Your task to perform on an android device: What's the latest video from GameSpot News? Image 0: 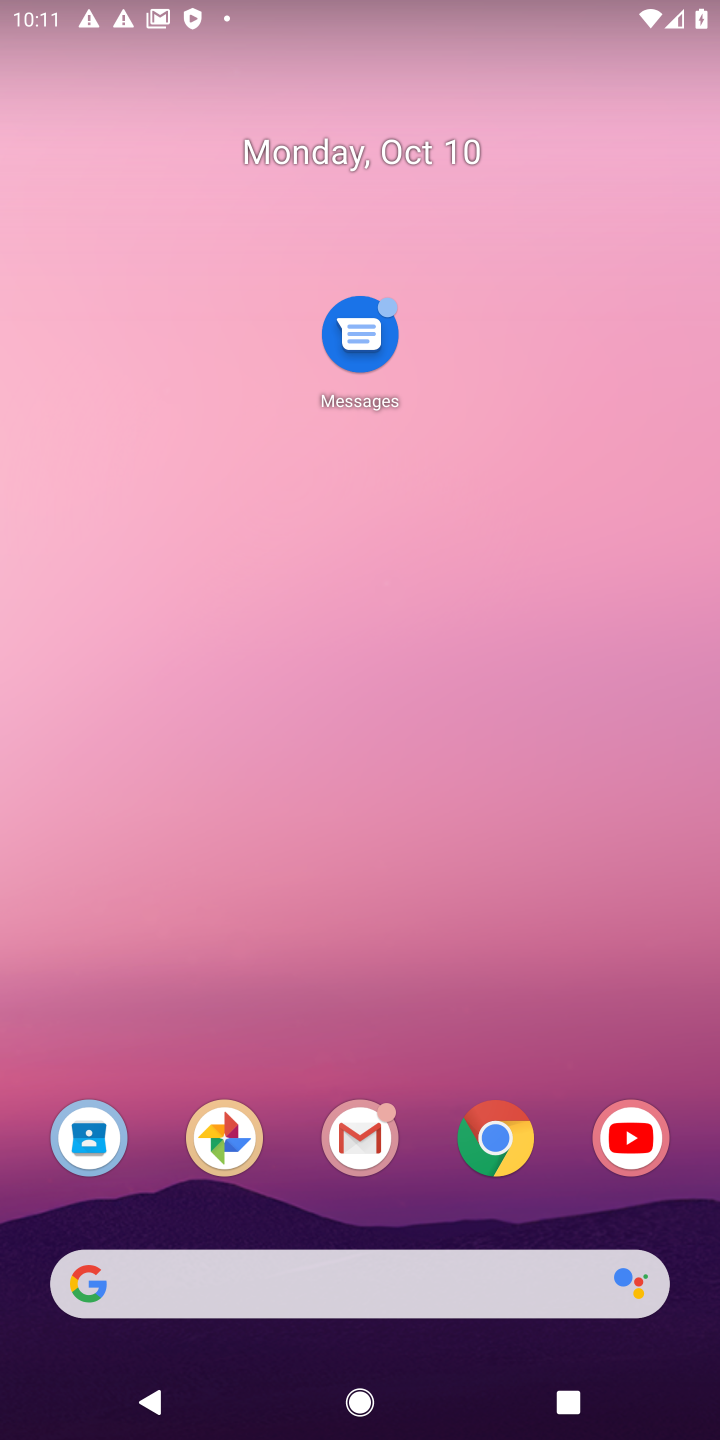
Step 0: click (504, 1120)
Your task to perform on an android device: What's the latest video from GameSpot News? Image 1: 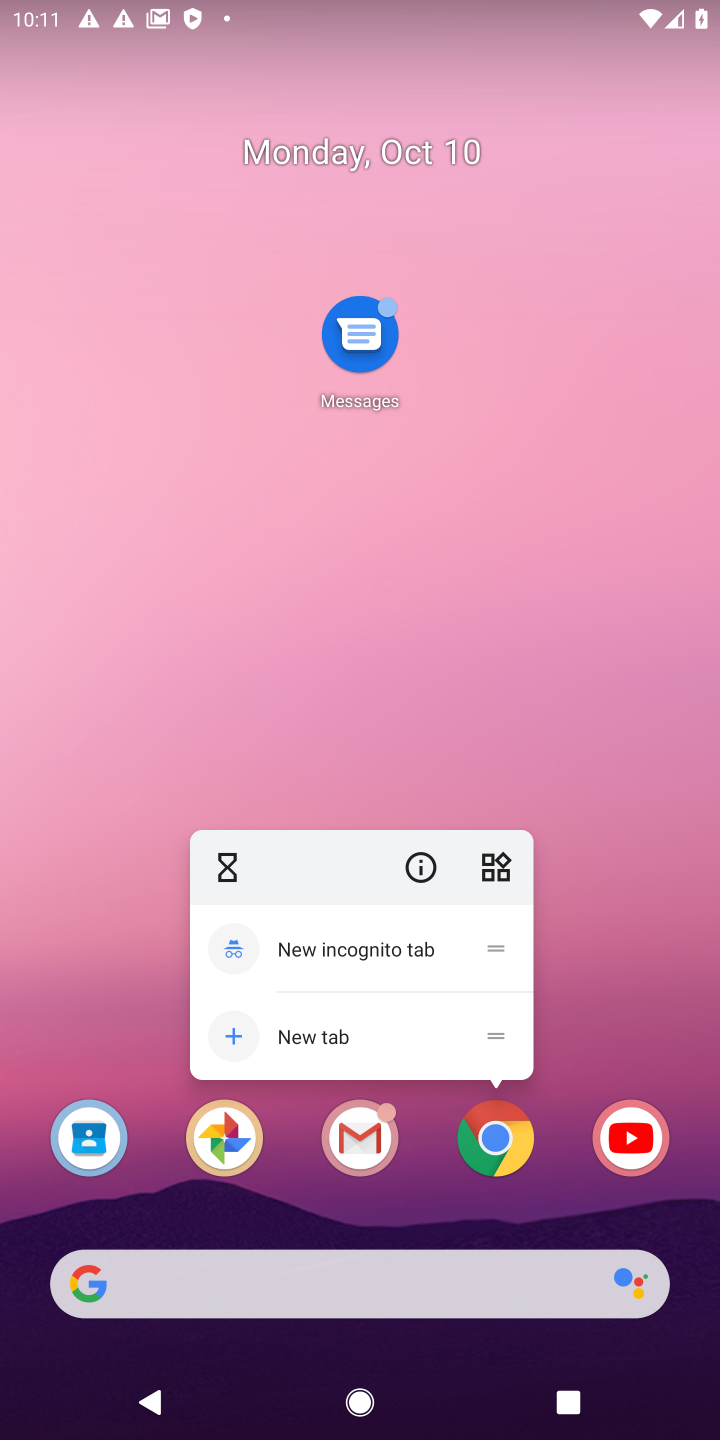
Step 1: click (504, 1151)
Your task to perform on an android device: What's the latest video from GameSpot News? Image 2: 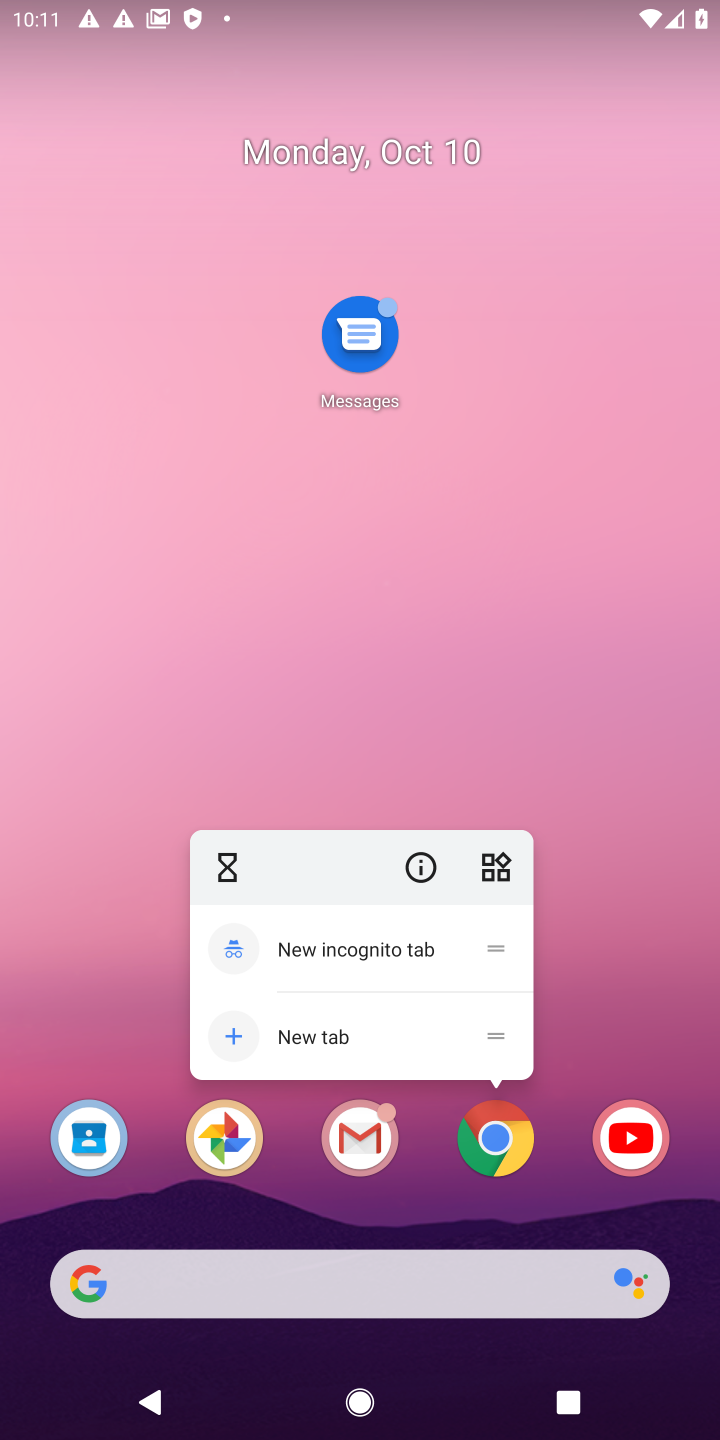
Step 2: click (640, 1152)
Your task to perform on an android device: What's the latest video from GameSpot News? Image 3: 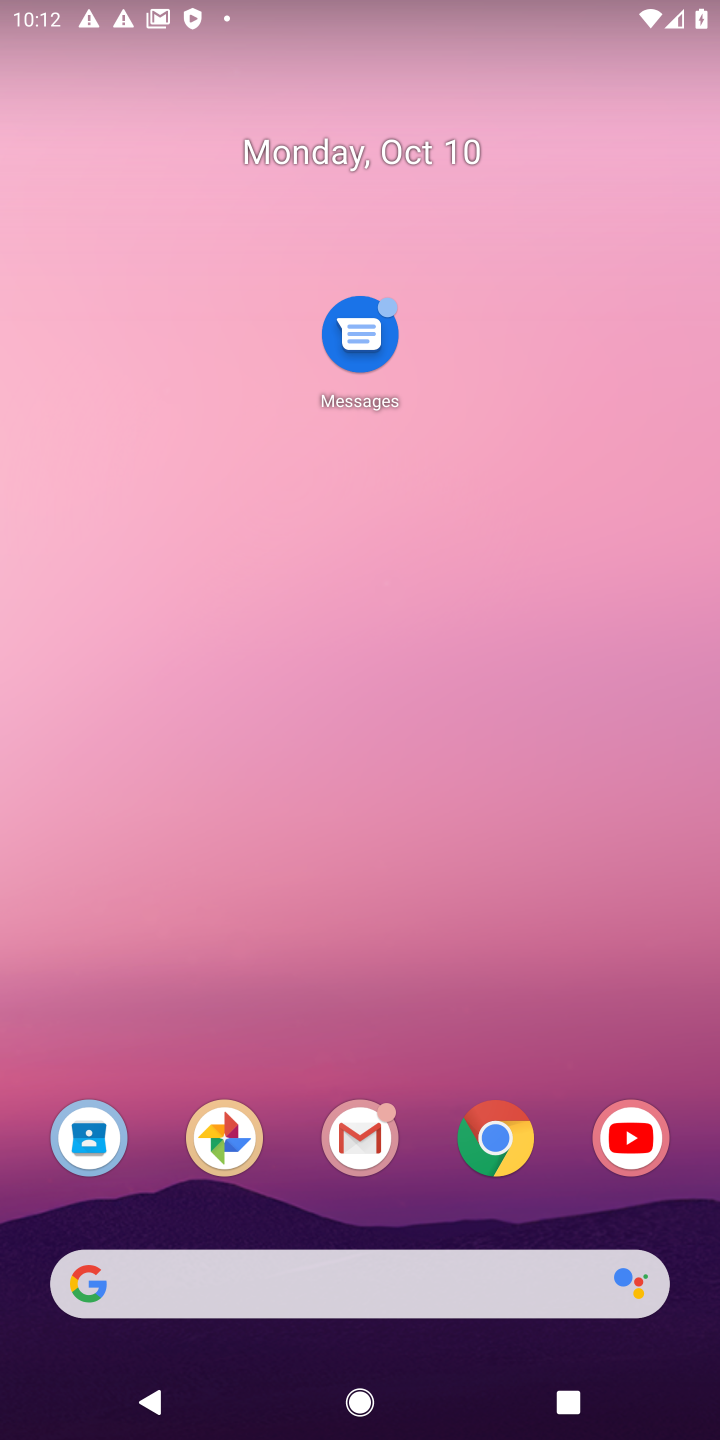
Step 3: click (648, 1146)
Your task to perform on an android device: What's the latest video from GameSpot News? Image 4: 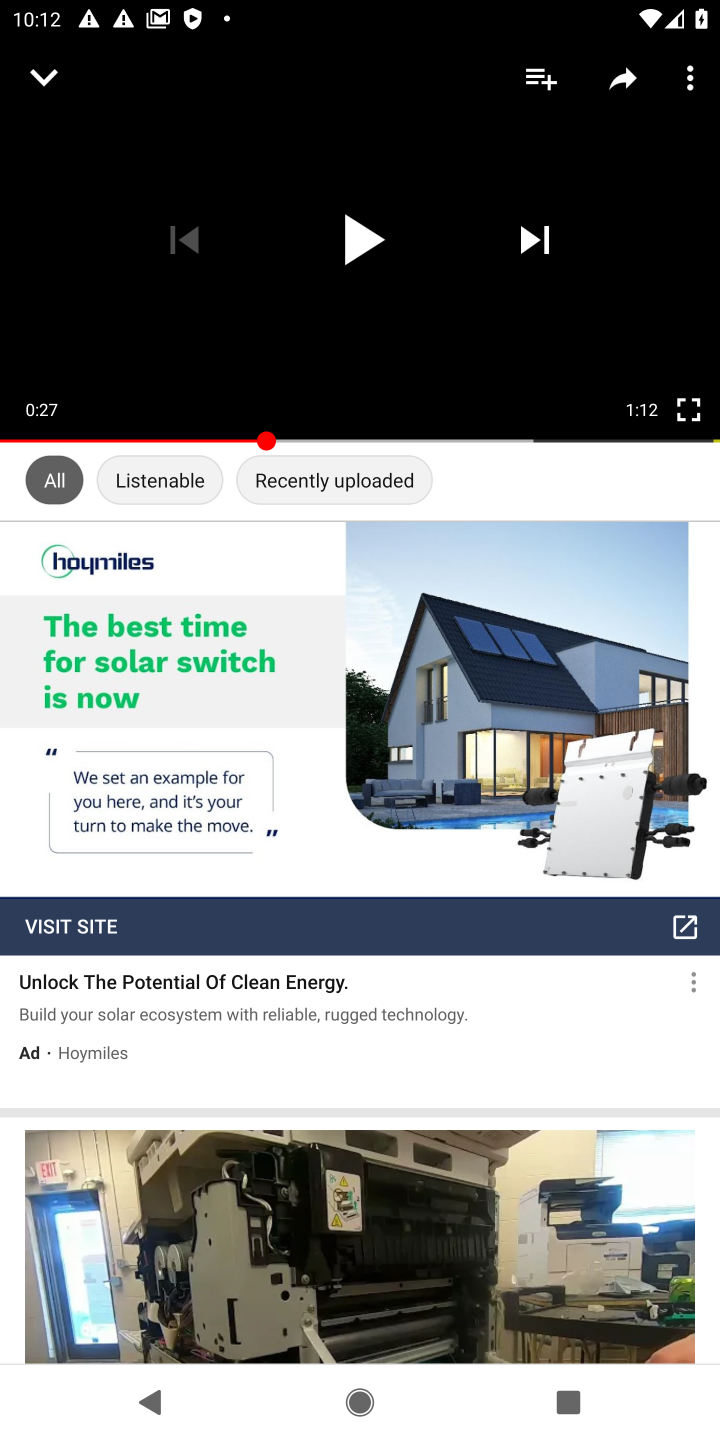
Step 4: click (50, 71)
Your task to perform on an android device: What's the latest video from GameSpot News? Image 5: 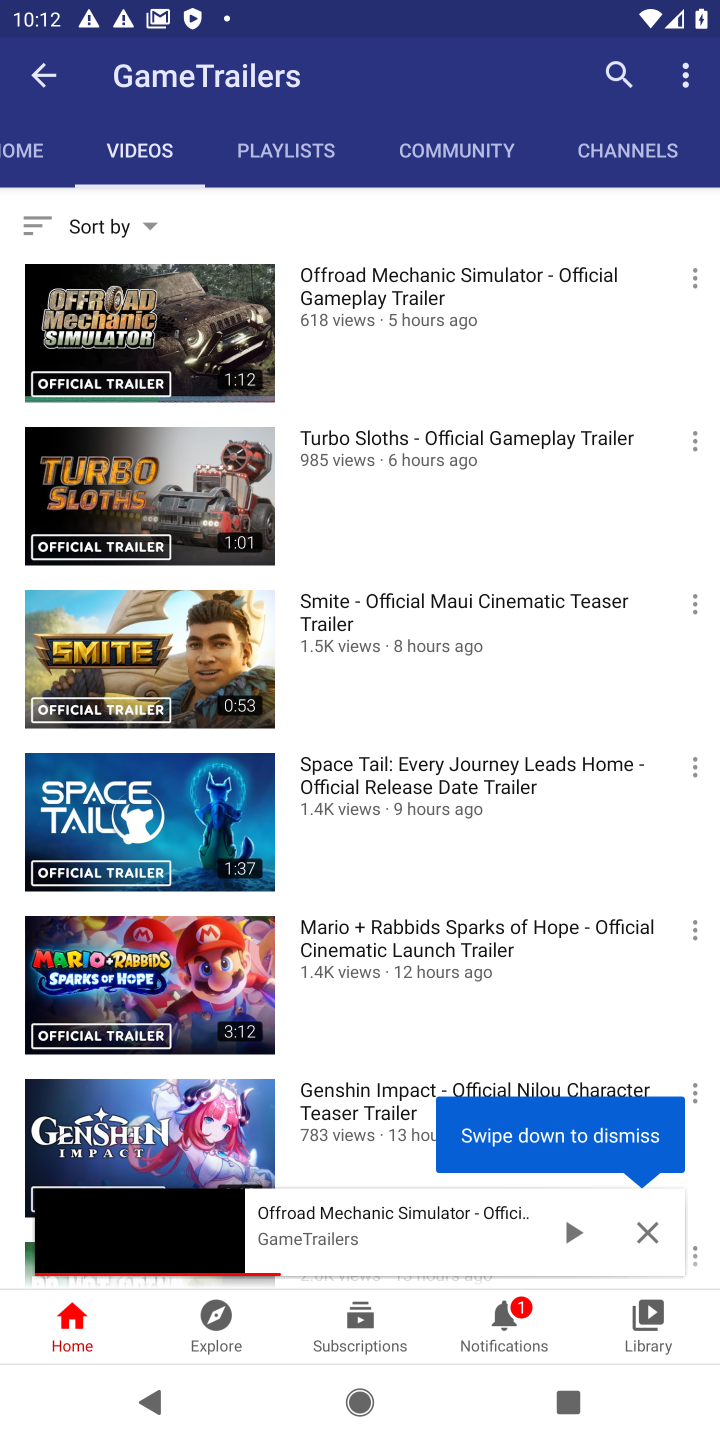
Step 5: click (610, 70)
Your task to perform on an android device: What's the latest video from GameSpot News? Image 6: 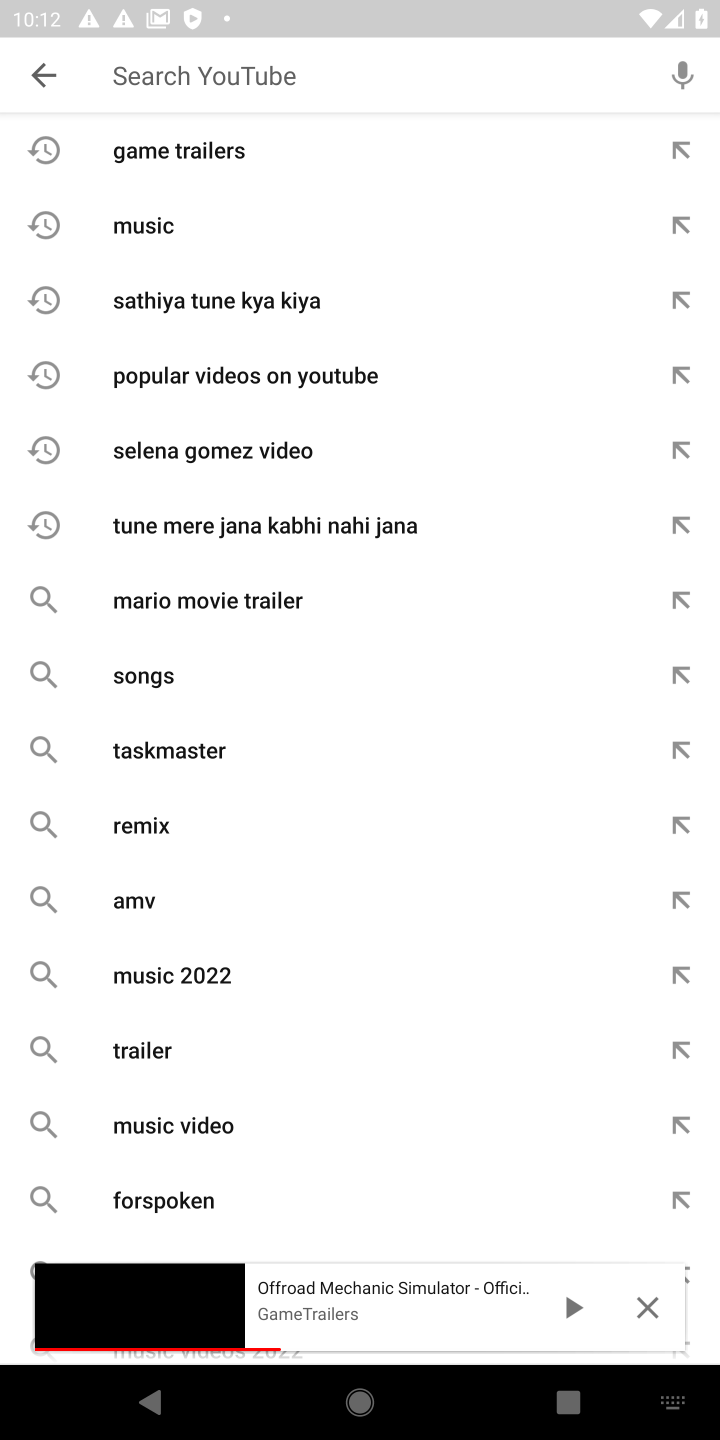
Step 6: type "gamespot news"
Your task to perform on an android device: What's the latest video from GameSpot News? Image 7: 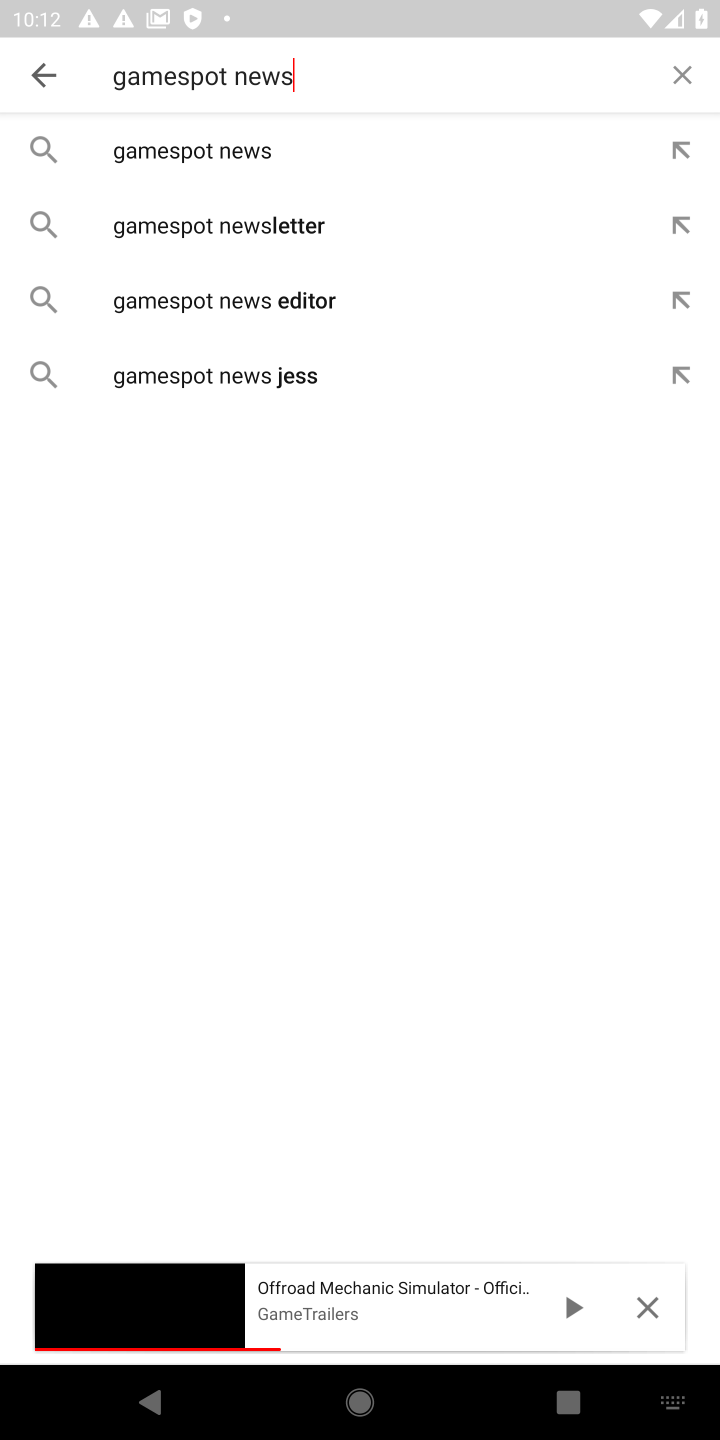
Step 7: press enter
Your task to perform on an android device: What's the latest video from GameSpot News? Image 8: 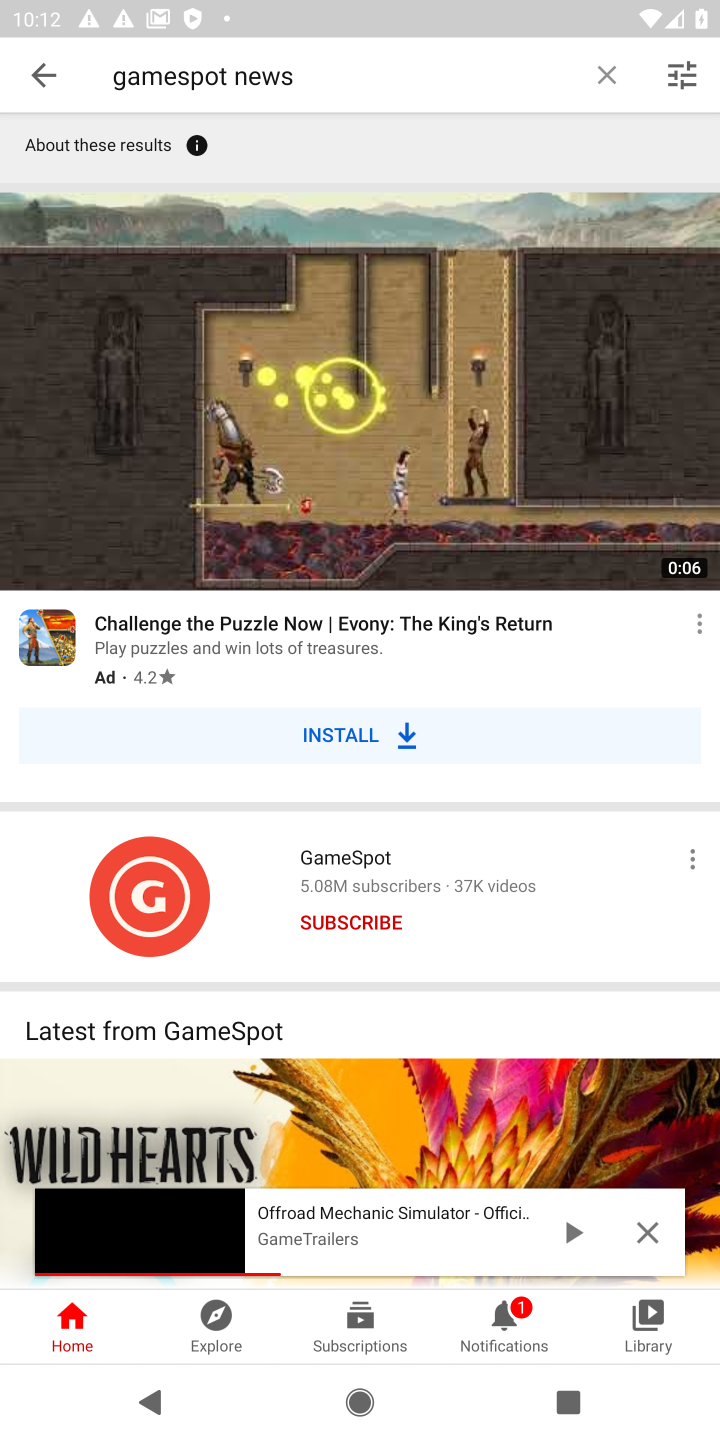
Step 8: click (653, 1239)
Your task to perform on an android device: What's the latest video from GameSpot News? Image 9: 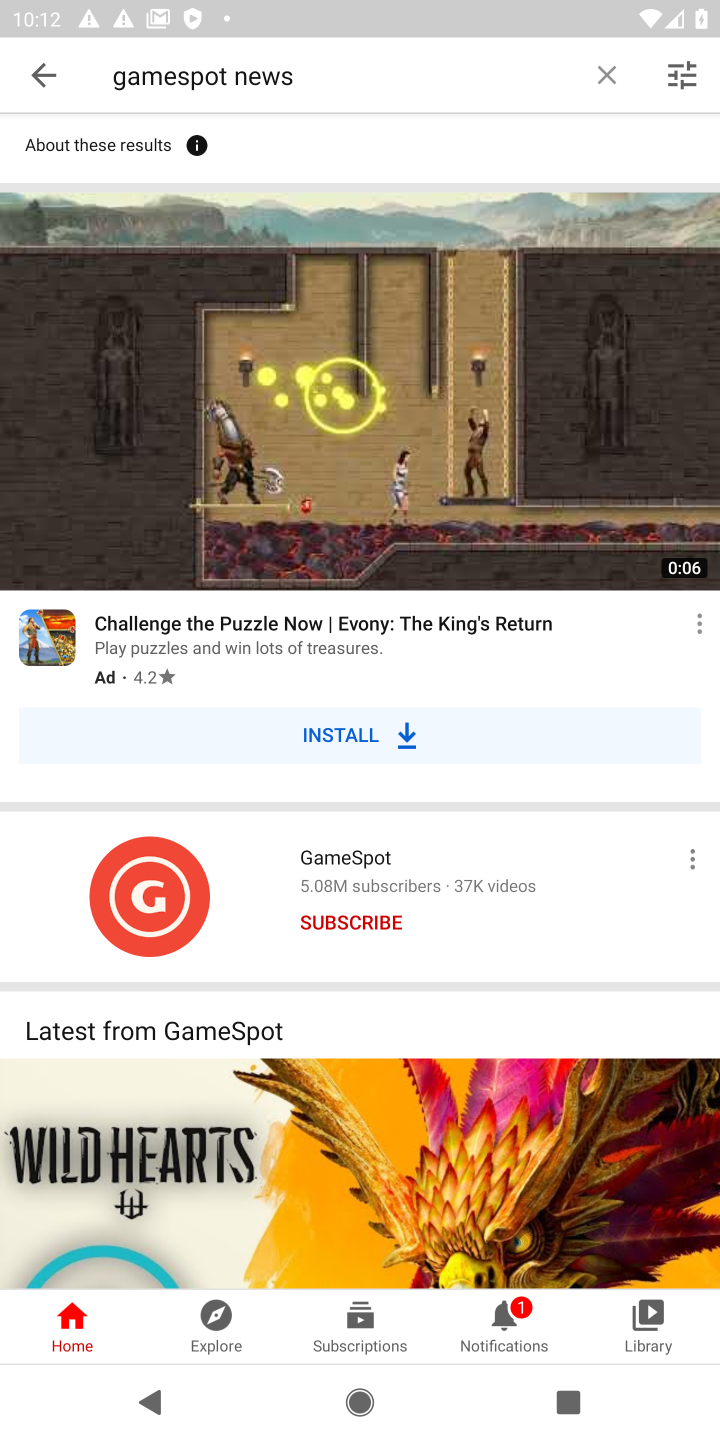
Step 9: click (339, 861)
Your task to perform on an android device: What's the latest video from GameSpot News? Image 10: 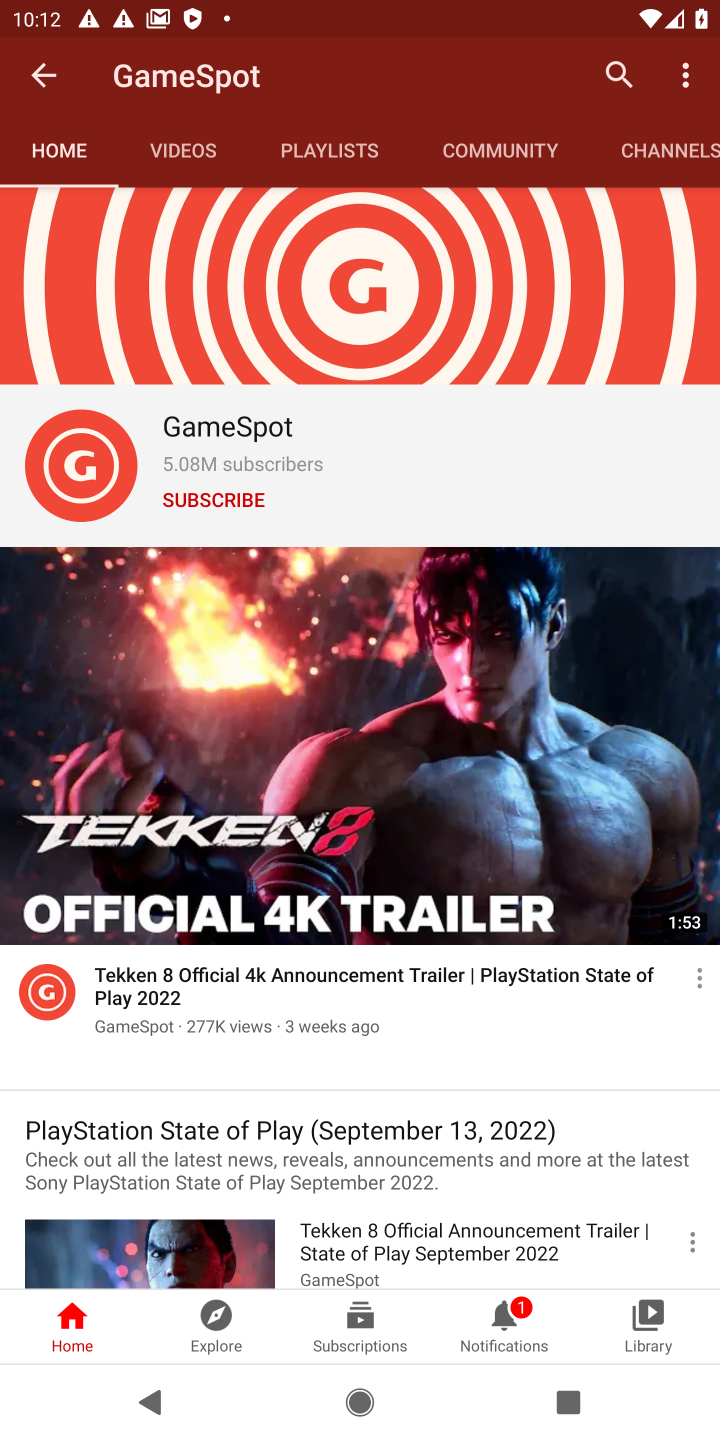
Step 10: click (190, 164)
Your task to perform on an android device: What's the latest video from GameSpot News? Image 11: 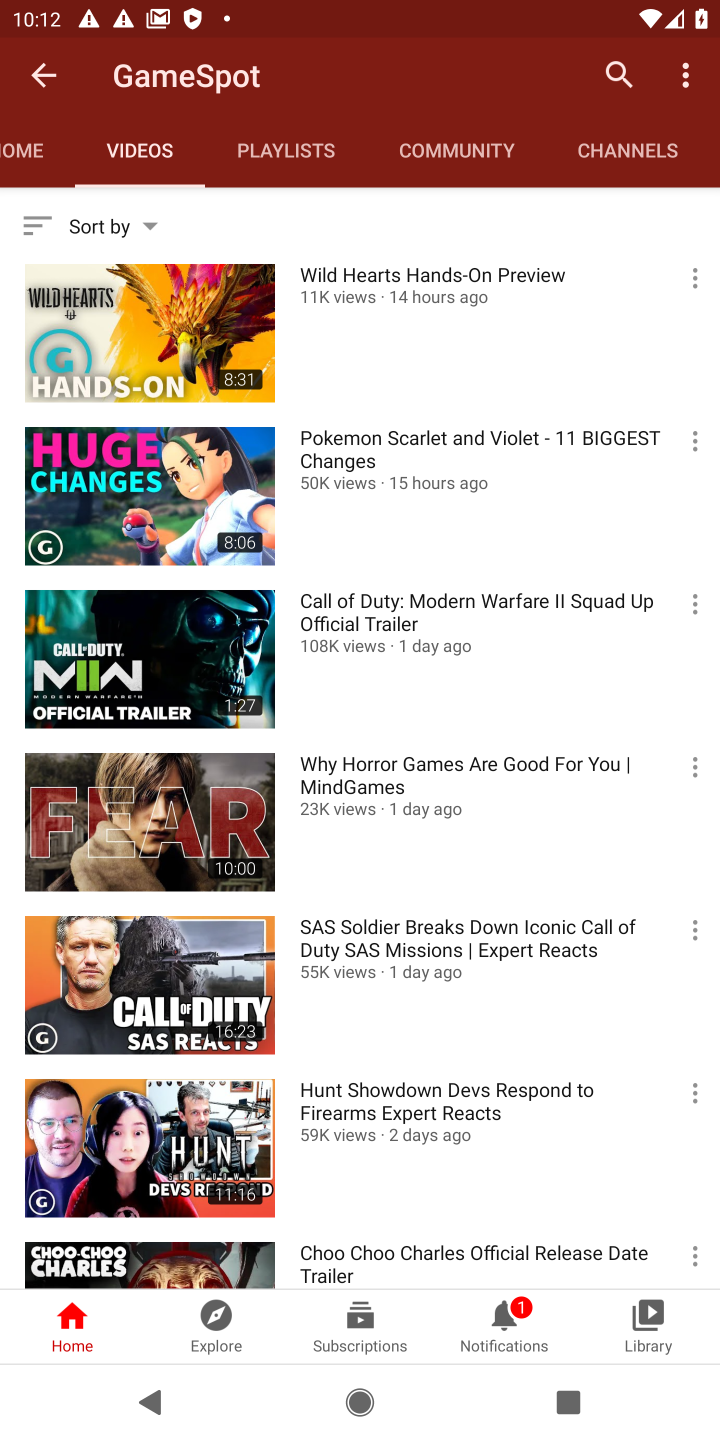
Step 11: click (125, 342)
Your task to perform on an android device: What's the latest video from GameSpot News? Image 12: 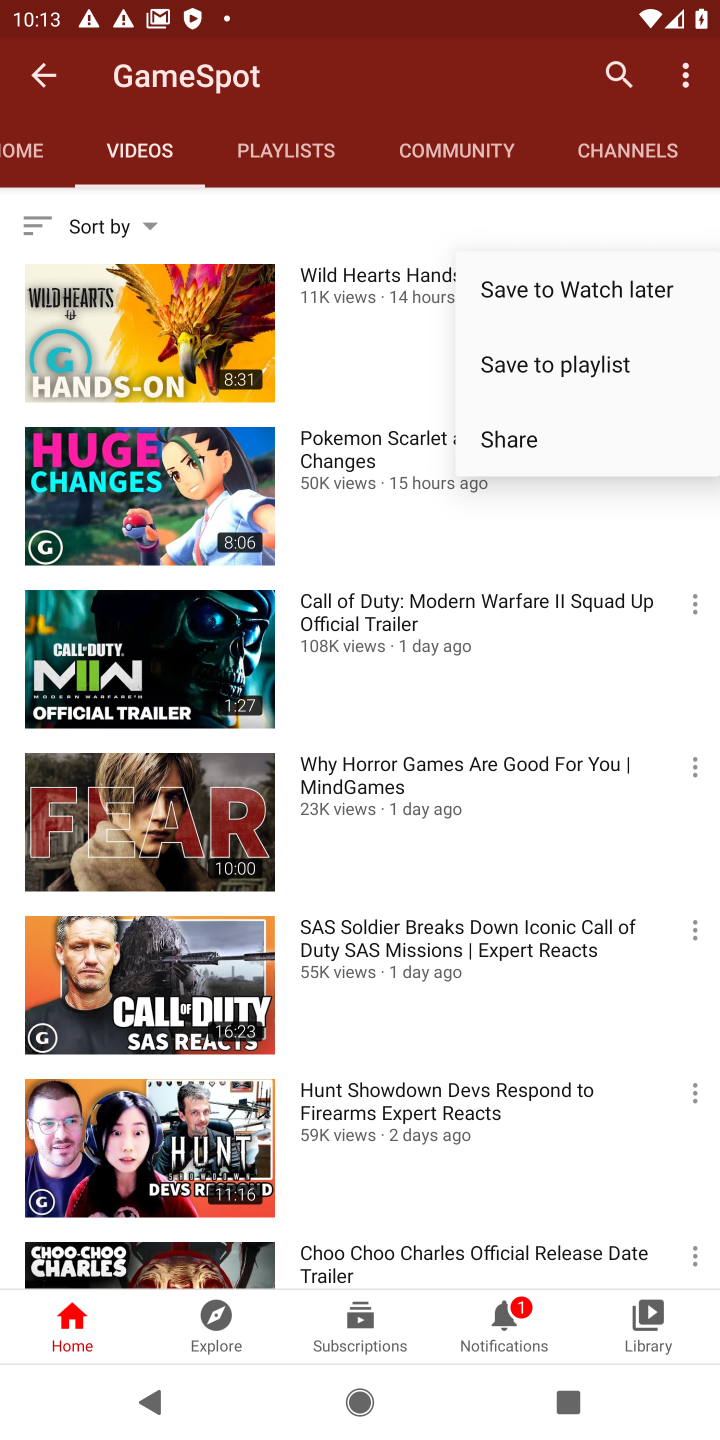
Step 12: click (119, 291)
Your task to perform on an android device: What's the latest video from GameSpot News? Image 13: 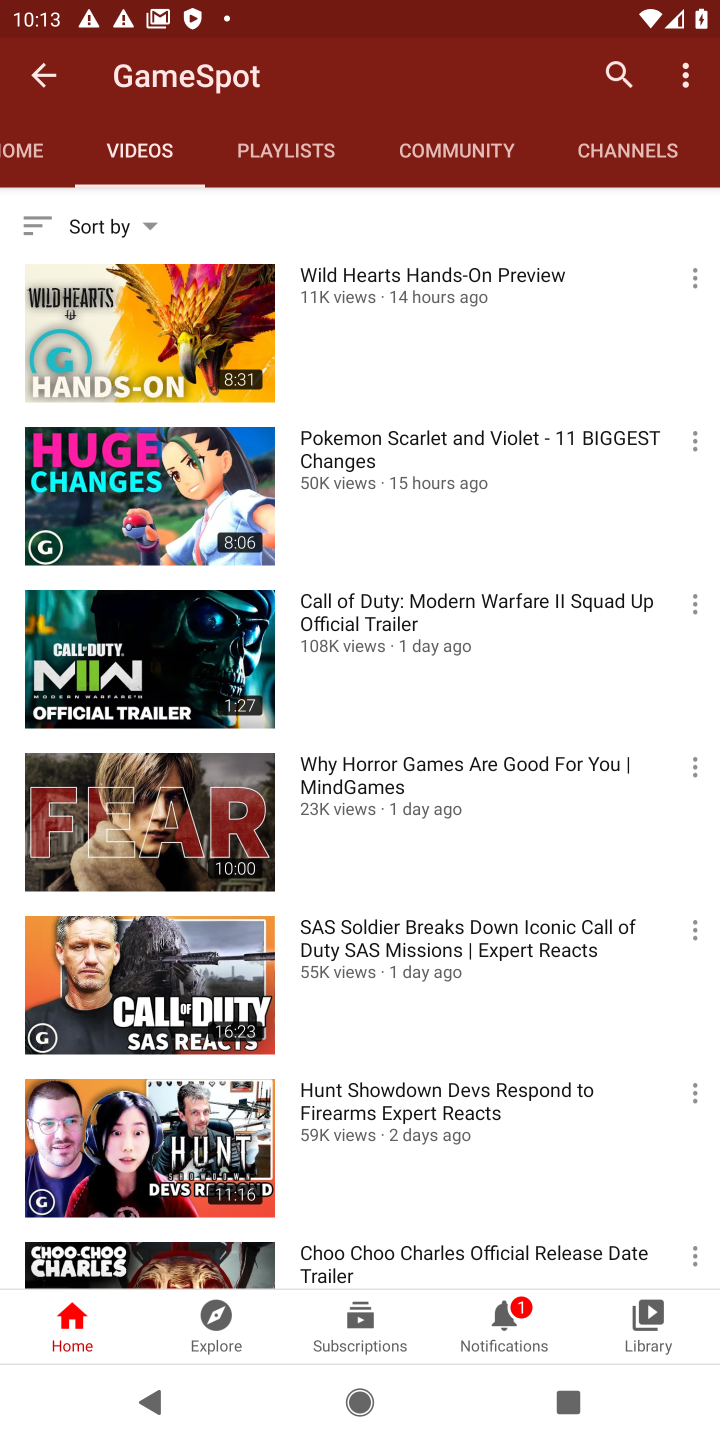
Step 13: click (241, 323)
Your task to perform on an android device: What's the latest video from GameSpot News? Image 14: 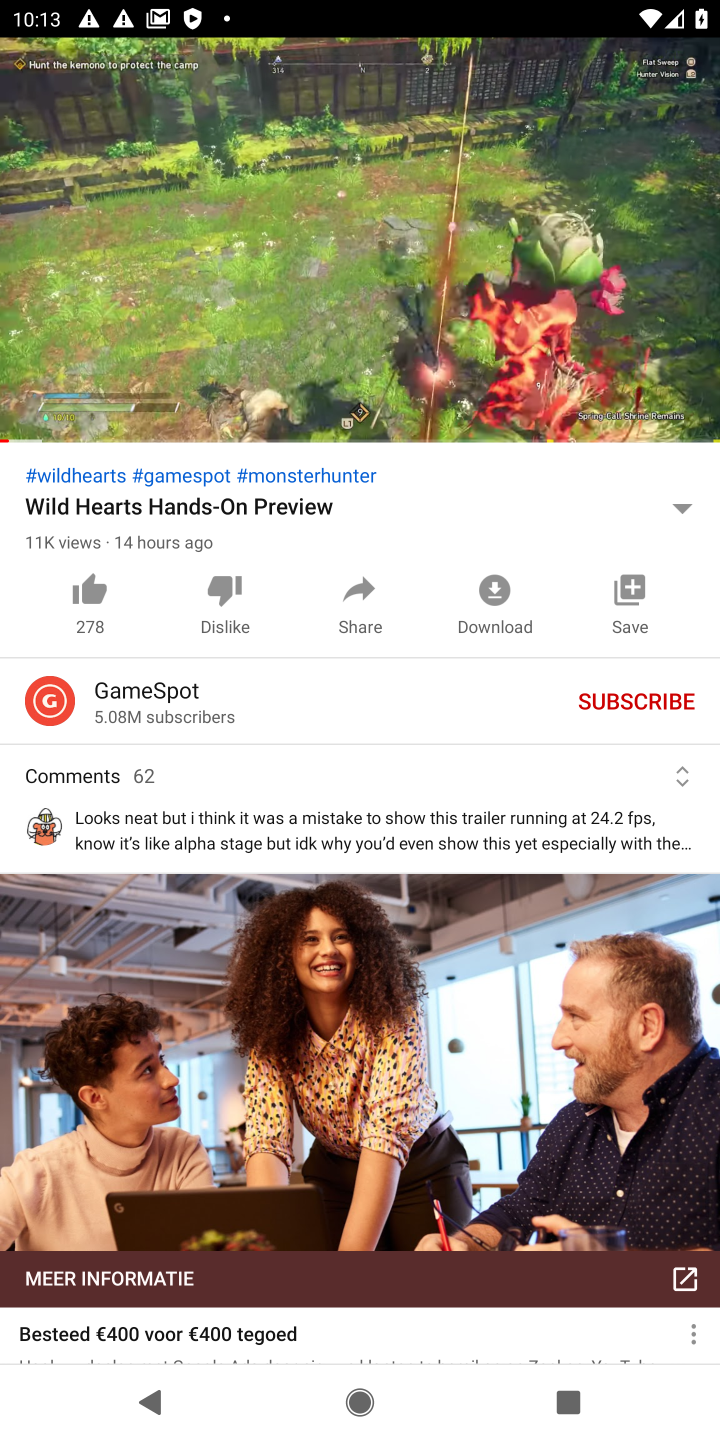
Step 14: click (643, 234)
Your task to perform on an android device: What's the latest video from GameSpot News? Image 15: 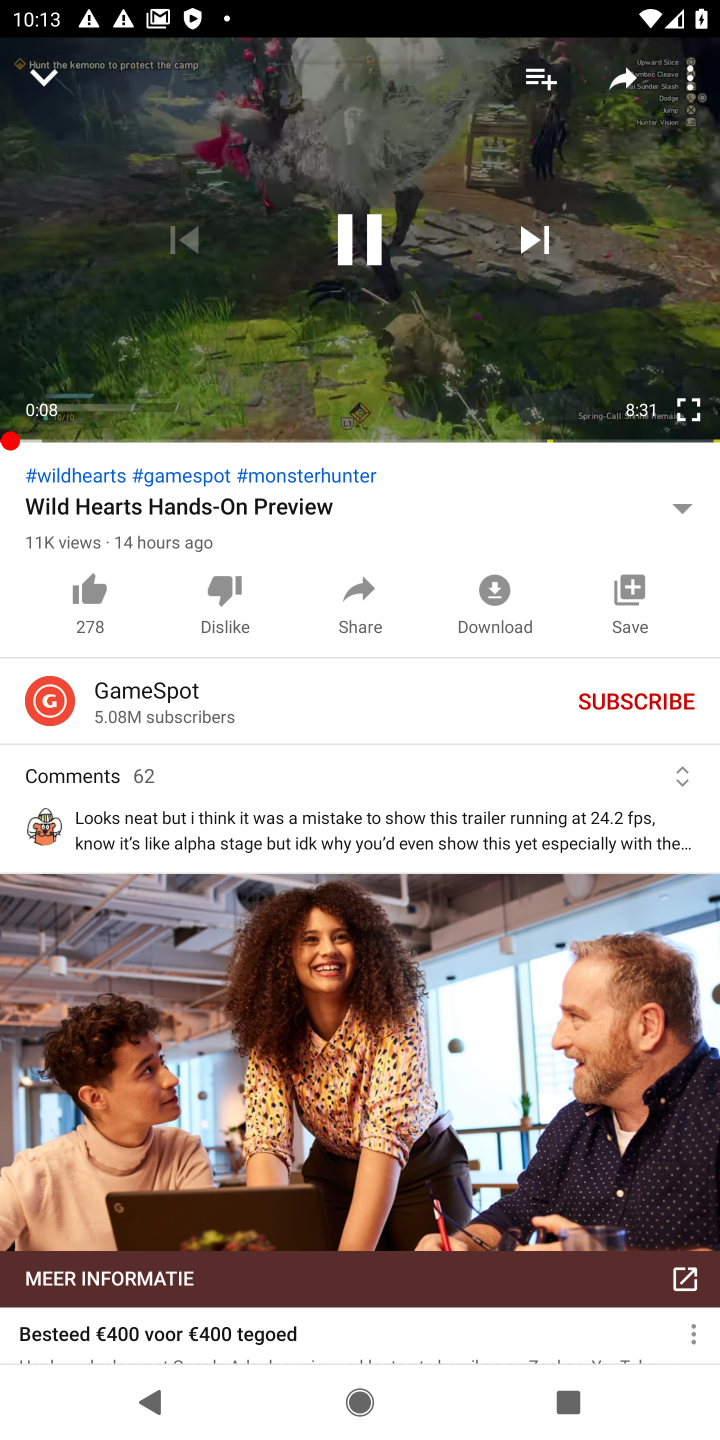
Step 15: click (643, 234)
Your task to perform on an android device: What's the latest video from GameSpot News? Image 16: 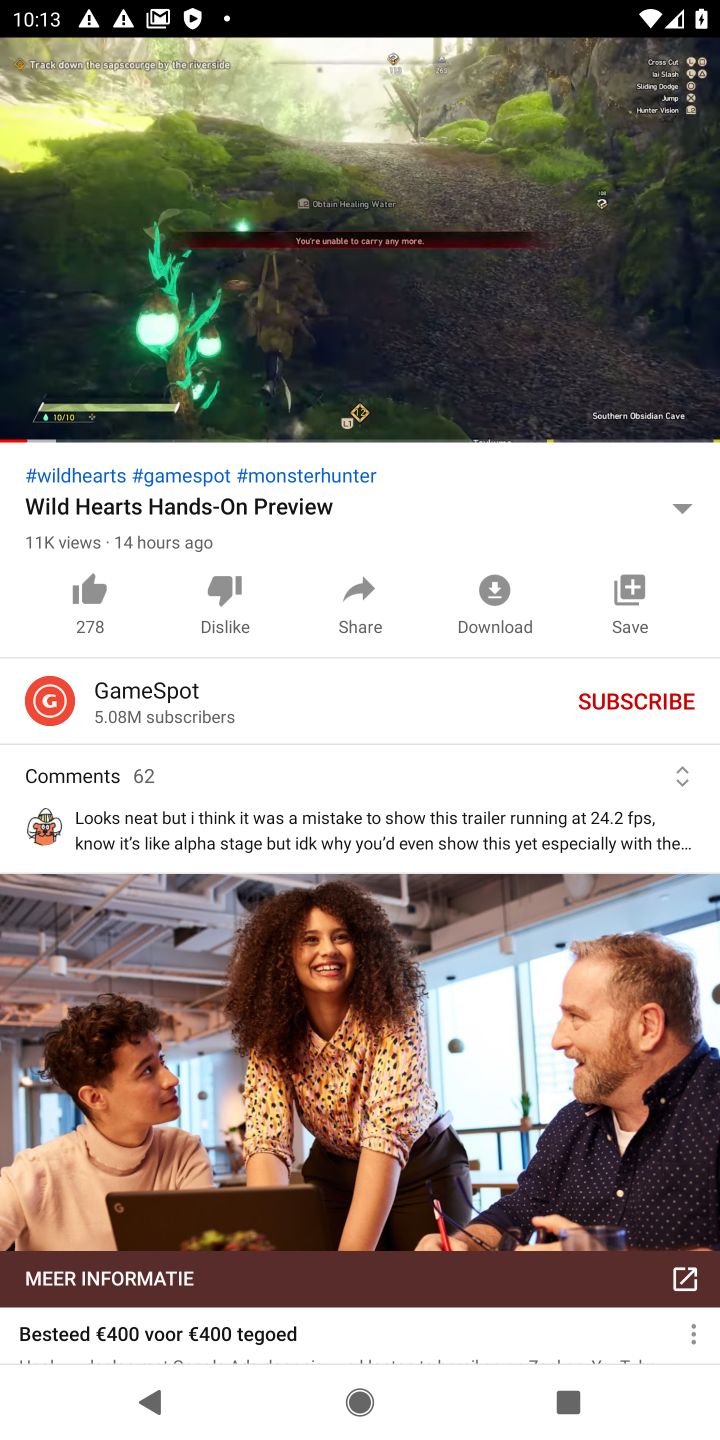
Step 16: click (614, 244)
Your task to perform on an android device: What's the latest video from GameSpot News? Image 17: 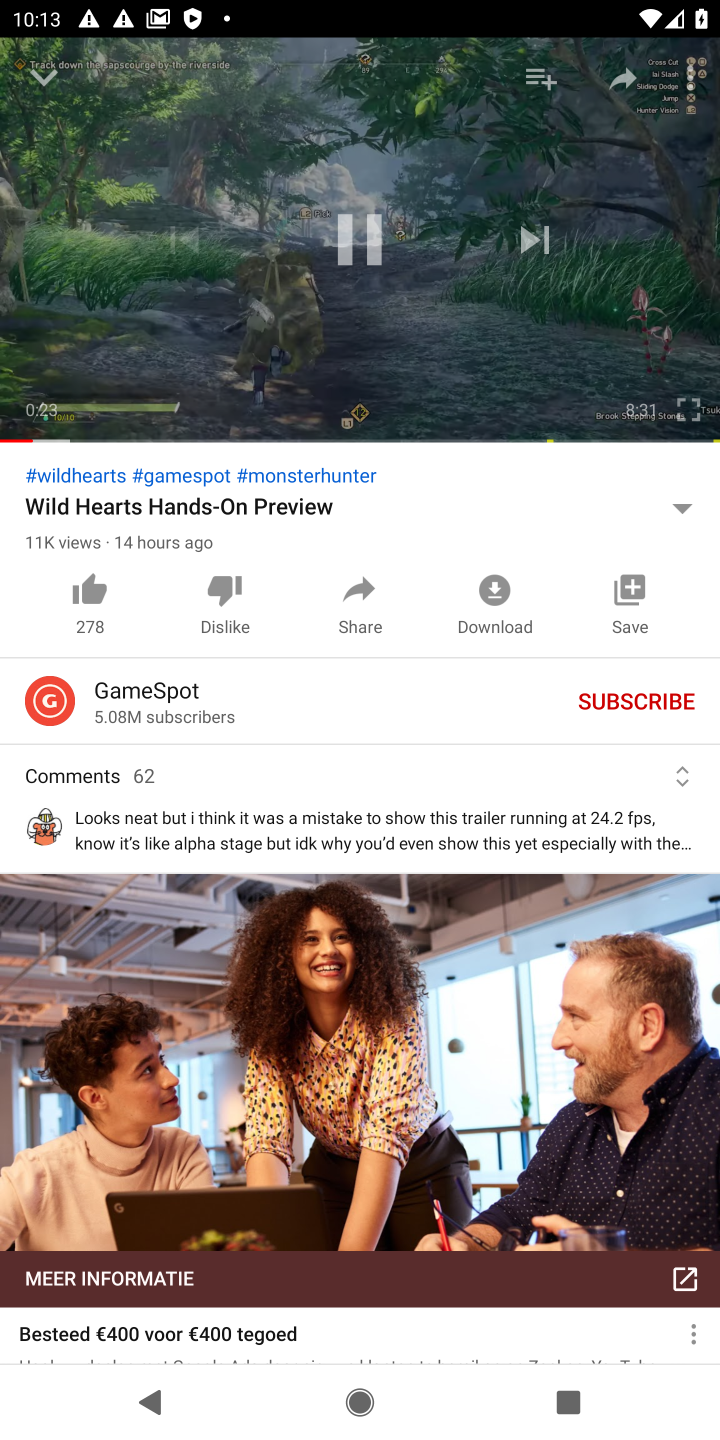
Step 17: task complete